Your task to perform on an android device: Go to Amazon Image 0: 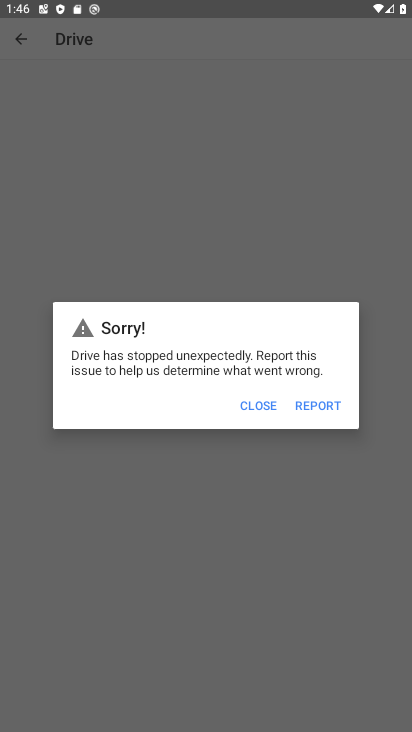
Step 0: click (207, 425)
Your task to perform on an android device: Go to Amazon Image 1: 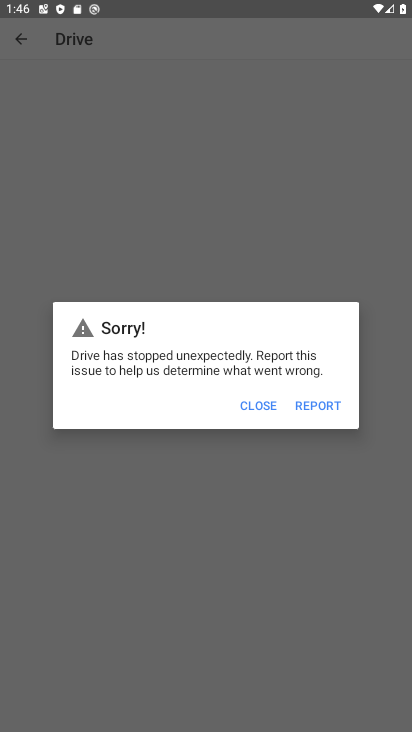
Step 1: press home button
Your task to perform on an android device: Go to Amazon Image 2: 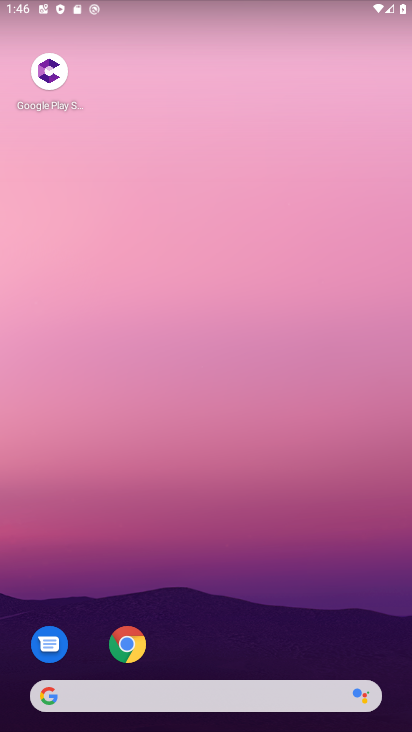
Step 2: click (125, 639)
Your task to perform on an android device: Go to Amazon Image 3: 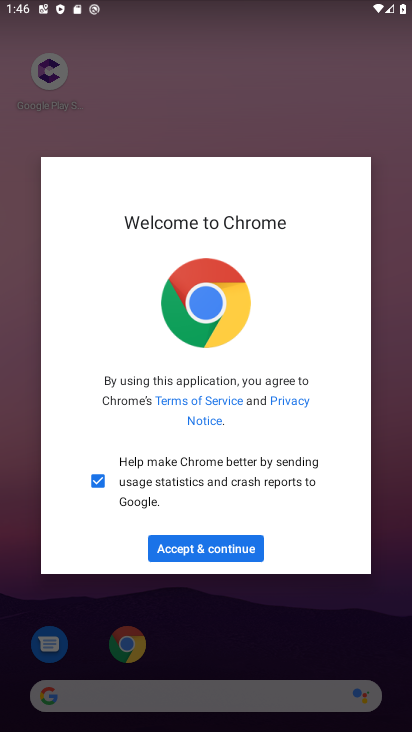
Step 3: click (221, 538)
Your task to perform on an android device: Go to Amazon Image 4: 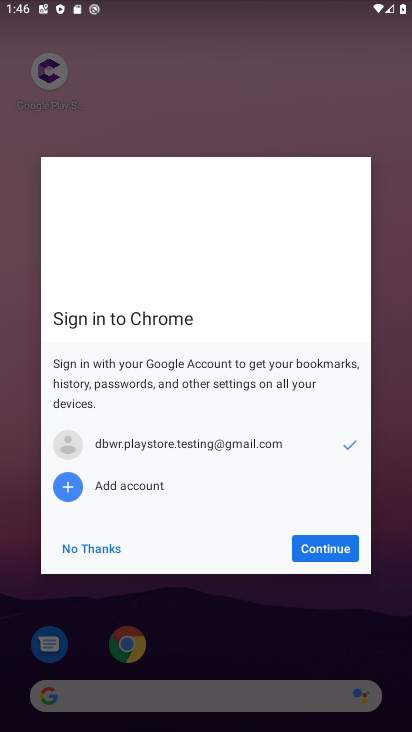
Step 4: click (103, 548)
Your task to perform on an android device: Go to Amazon Image 5: 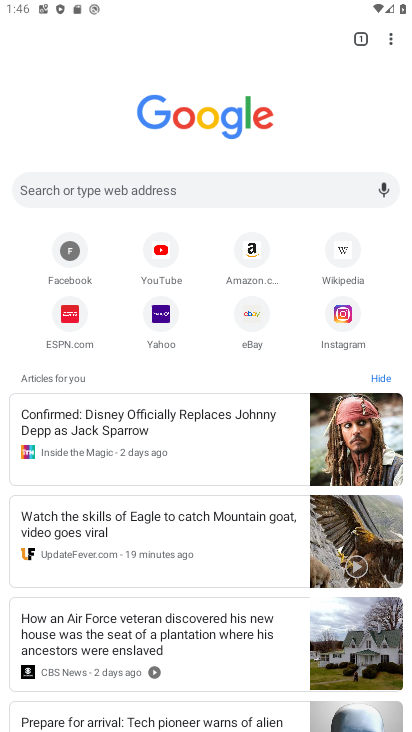
Step 5: click (239, 255)
Your task to perform on an android device: Go to Amazon Image 6: 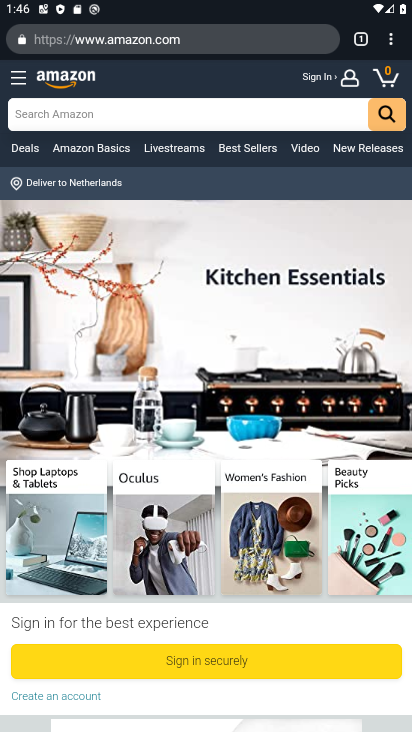
Step 6: task complete